Your task to perform on an android device: Go to notification settings Image 0: 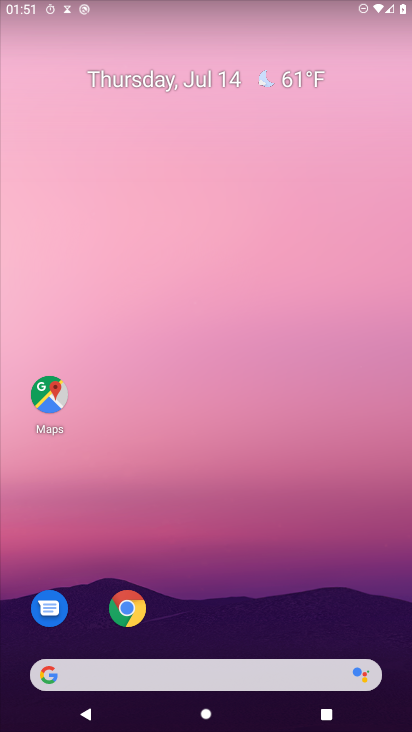
Step 0: press home button
Your task to perform on an android device: Go to notification settings Image 1: 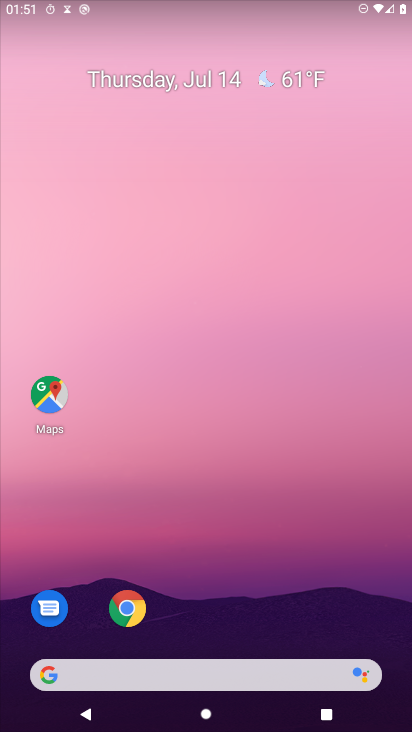
Step 1: drag from (255, 596) to (287, 45)
Your task to perform on an android device: Go to notification settings Image 2: 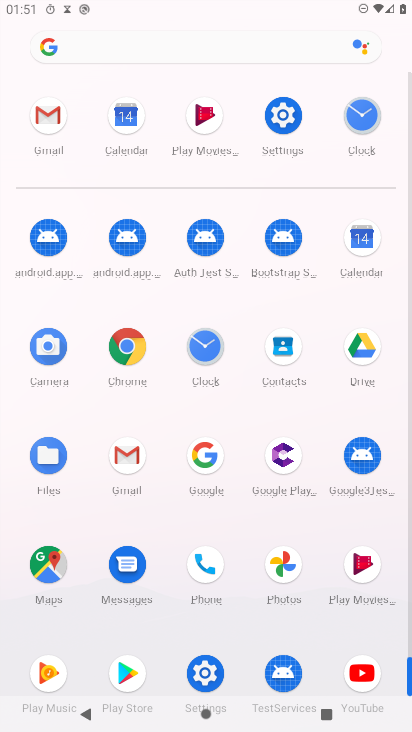
Step 2: click (274, 116)
Your task to perform on an android device: Go to notification settings Image 3: 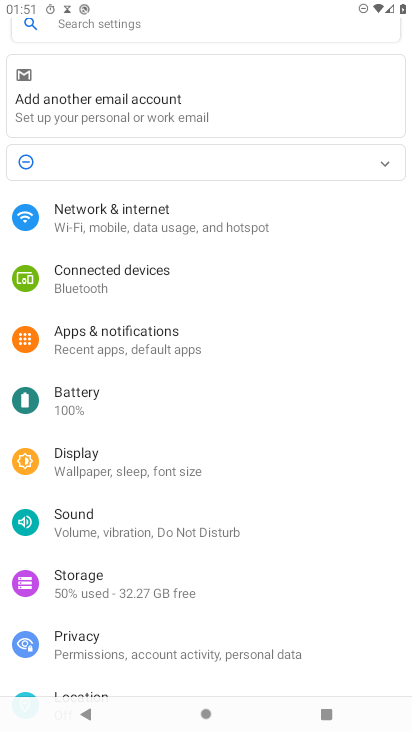
Step 3: click (110, 338)
Your task to perform on an android device: Go to notification settings Image 4: 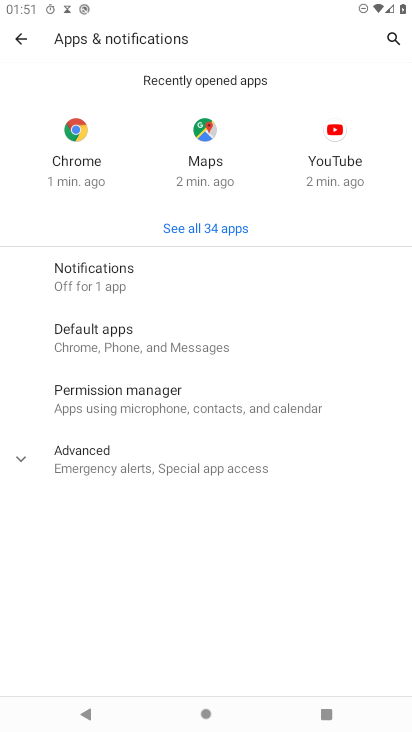
Step 4: task complete